Your task to perform on an android device: Open location settings Image 0: 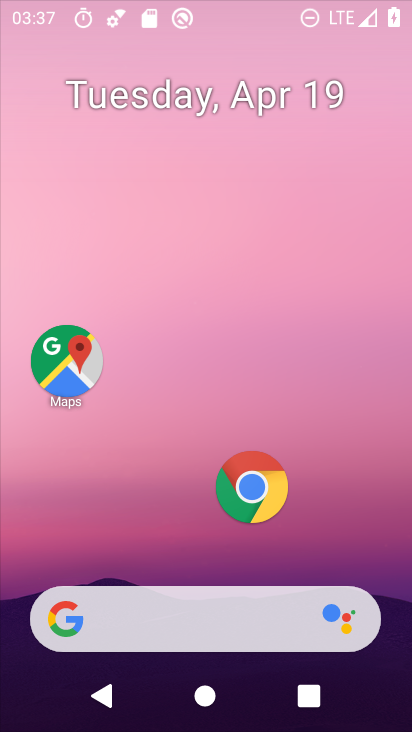
Step 0: drag from (142, 559) to (282, 65)
Your task to perform on an android device: Open location settings Image 1: 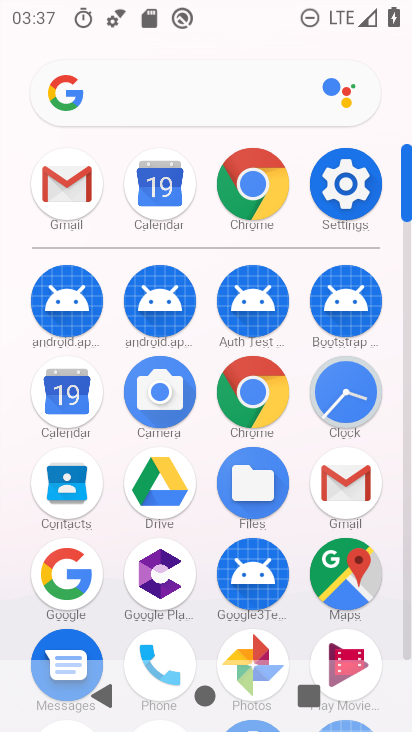
Step 1: click (337, 175)
Your task to perform on an android device: Open location settings Image 2: 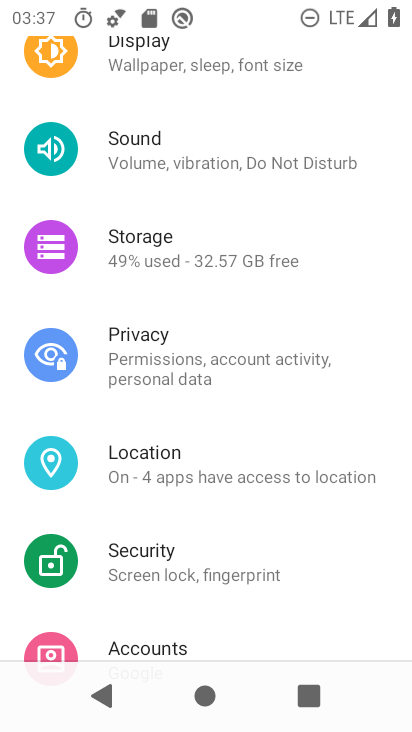
Step 2: click (132, 456)
Your task to perform on an android device: Open location settings Image 3: 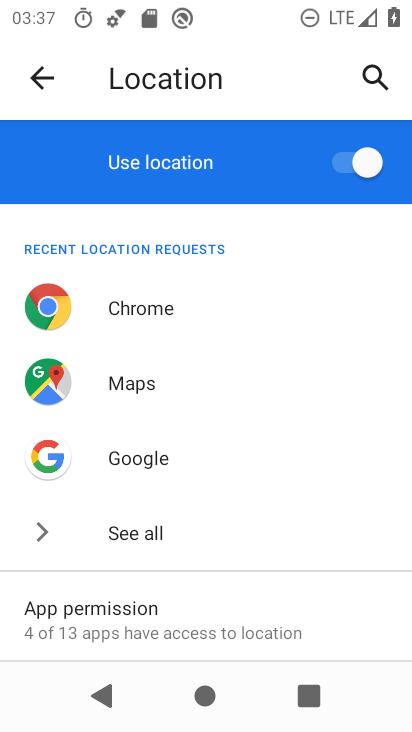
Step 3: task complete